Your task to perform on an android device: Search for the best Nike running shoes on Nike.com Image 0: 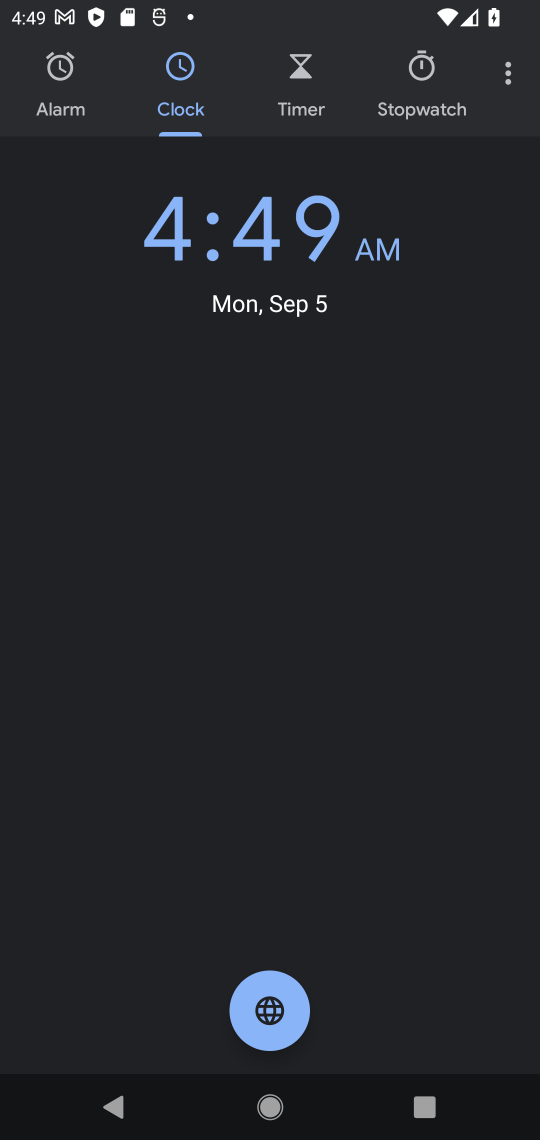
Step 0: press home button
Your task to perform on an android device: Search for the best Nike running shoes on Nike.com Image 1: 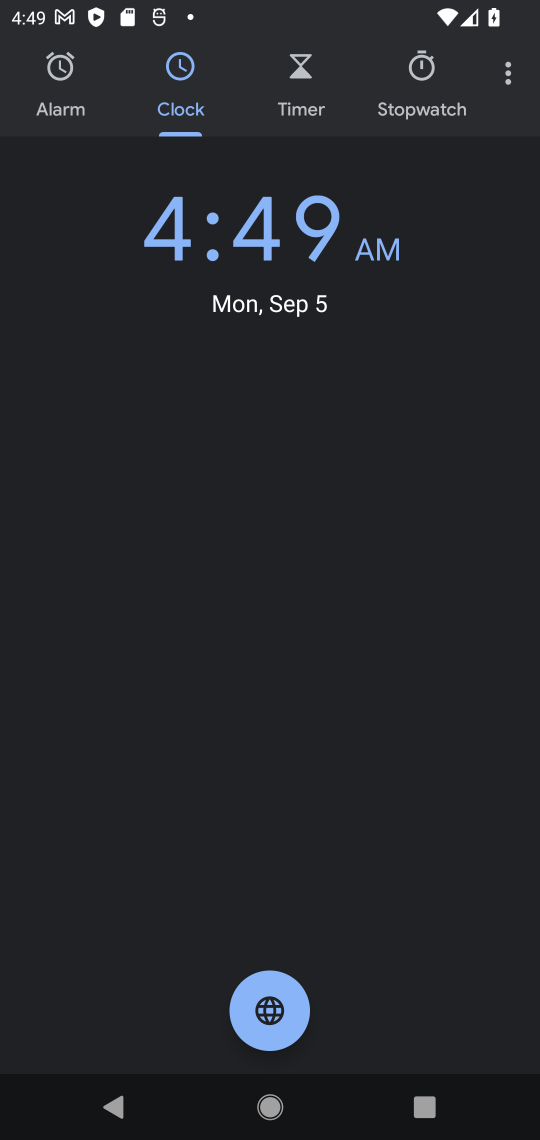
Step 1: press home button
Your task to perform on an android device: Search for the best Nike running shoes on Nike.com Image 2: 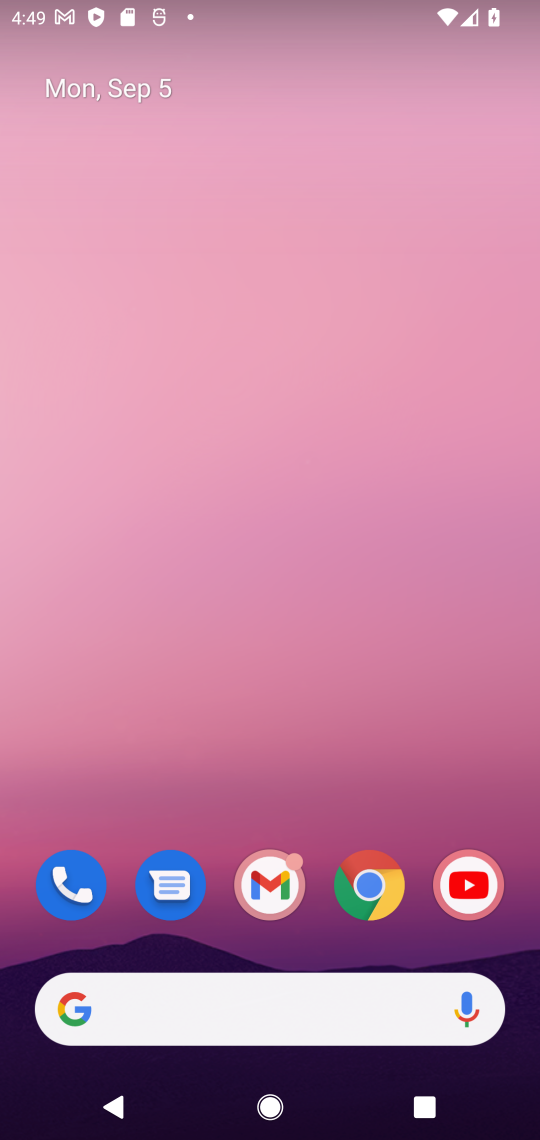
Step 2: press home button
Your task to perform on an android device: Search for the best Nike running shoes on Nike.com Image 3: 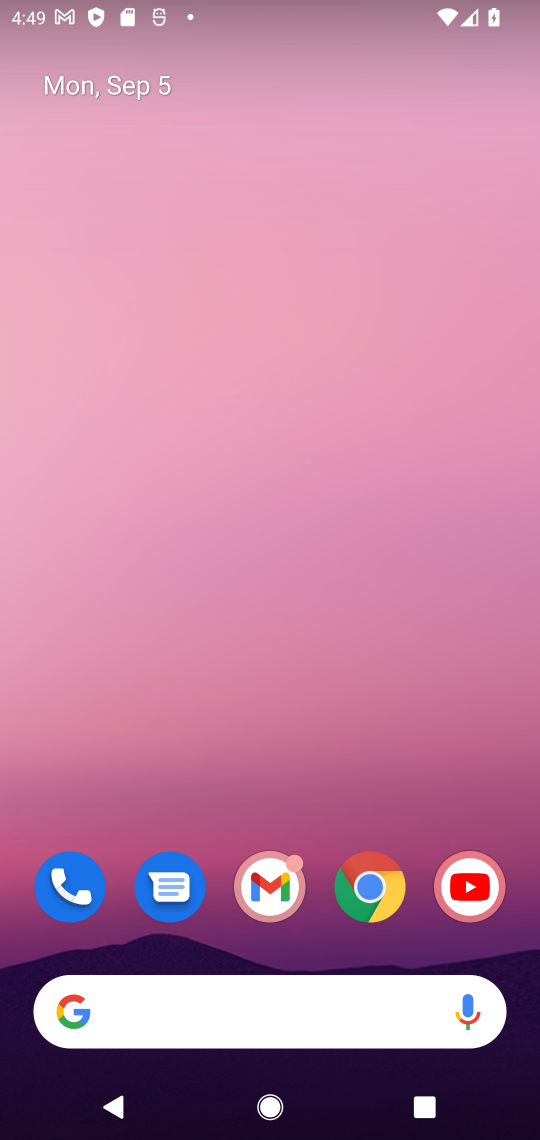
Step 3: drag from (539, 27) to (536, 588)
Your task to perform on an android device: Search for the best Nike running shoes on Nike.com Image 4: 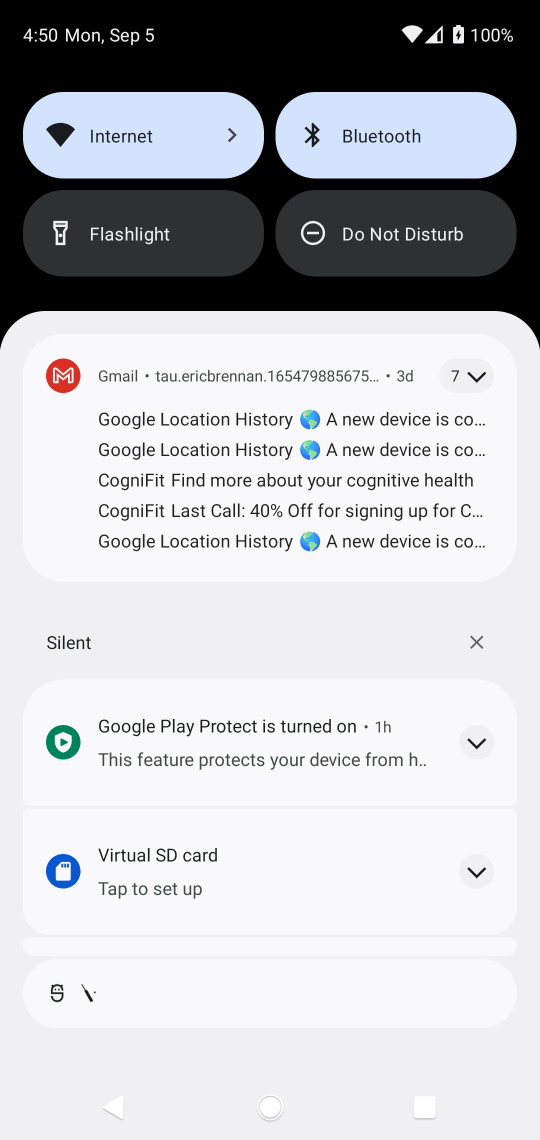
Step 4: press home button
Your task to perform on an android device: Search for the best Nike running shoes on Nike.com Image 5: 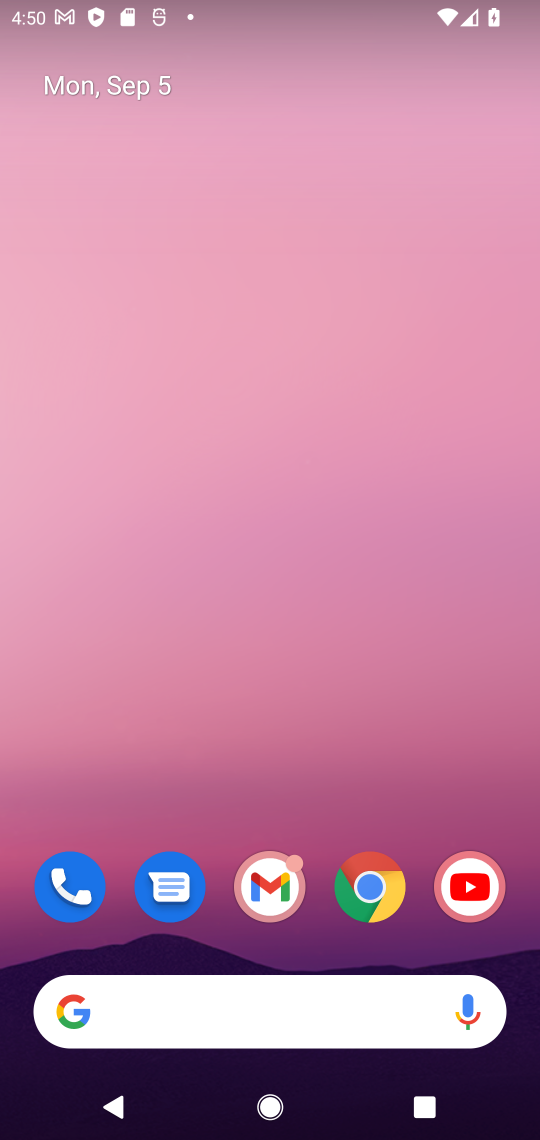
Step 5: drag from (320, 782) to (354, 31)
Your task to perform on an android device: Search for the best Nike running shoes on Nike.com Image 6: 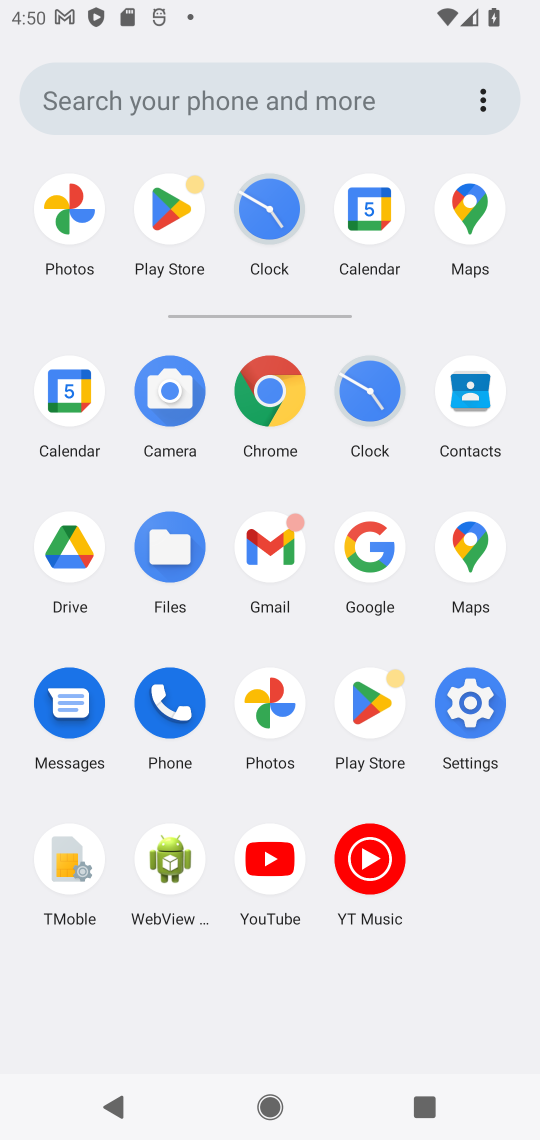
Step 6: click (269, 396)
Your task to perform on an android device: Search for the best Nike running shoes on Nike.com Image 7: 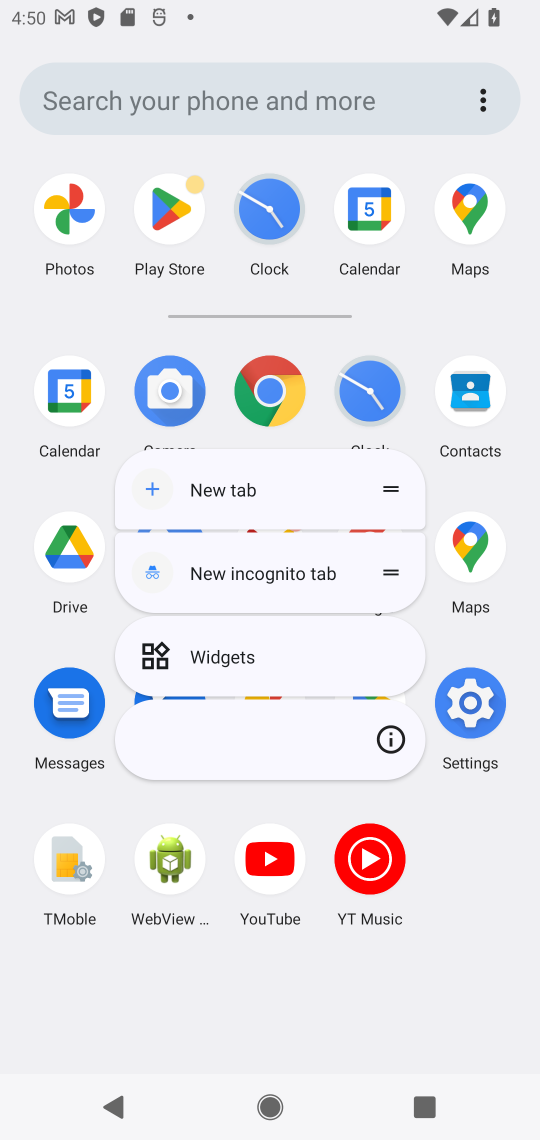
Step 7: click (260, 395)
Your task to perform on an android device: Search for the best Nike running shoes on Nike.com Image 8: 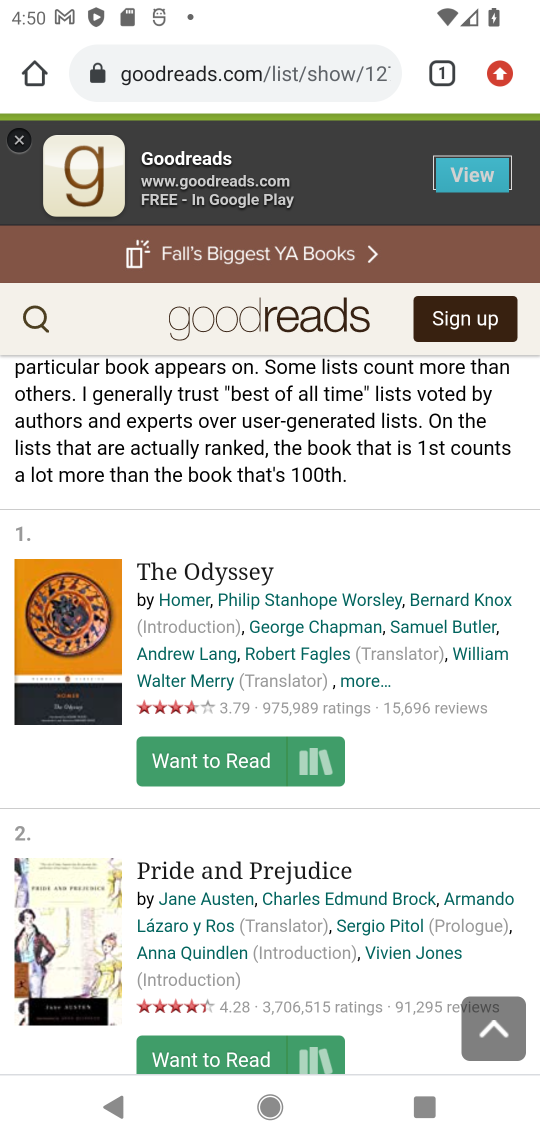
Step 8: click (266, 84)
Your task to perform on an android device: Search for the best Nike running shoes on Nike.com Image 9: 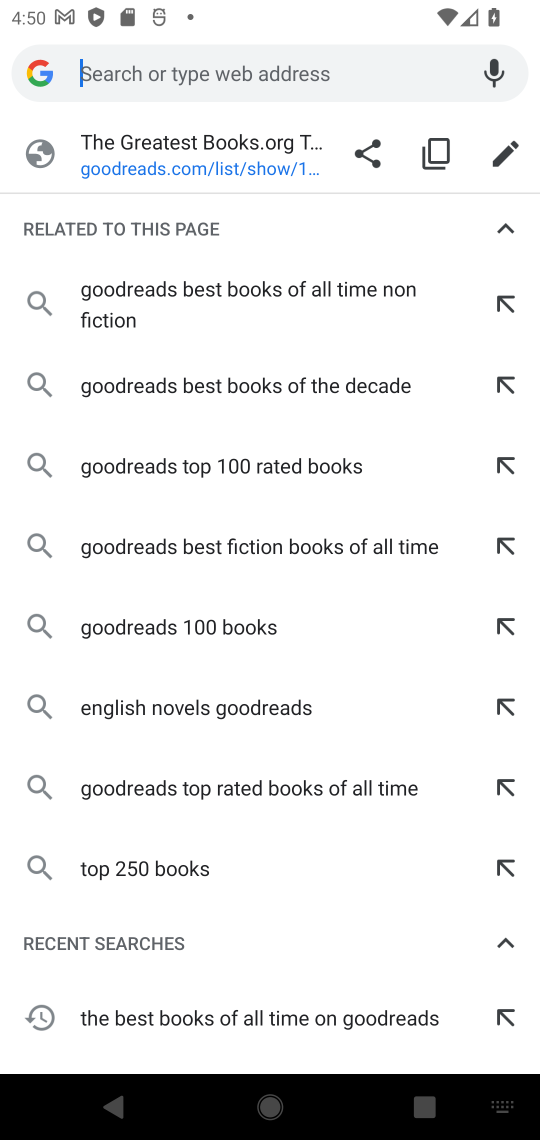
Step 9: type "Nike running shoes on Nike.com"
Your task to perform on an android device: Search for the best Nike running shoes on Nike.com Image 10: 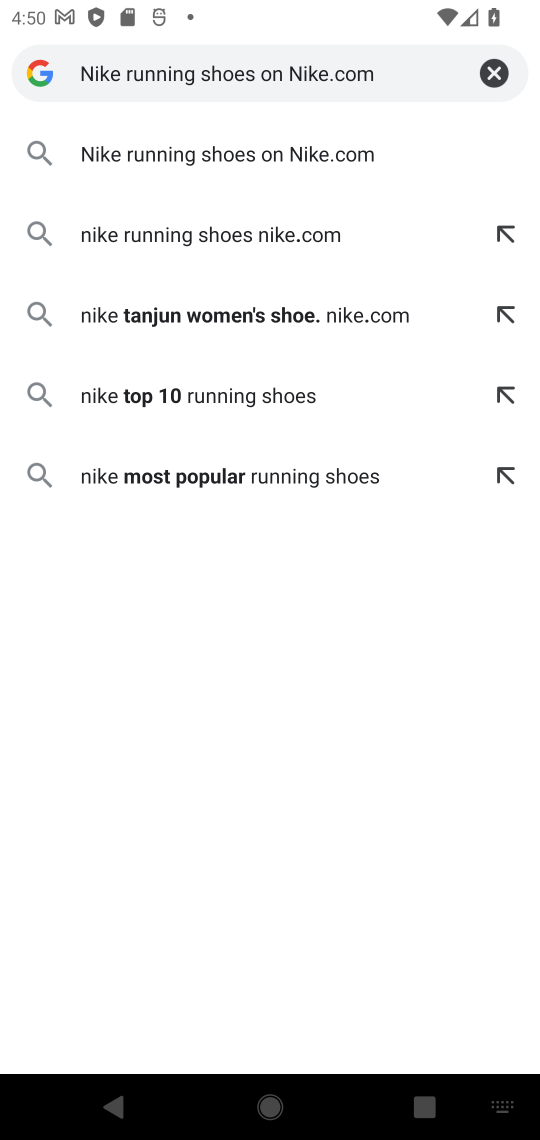
Step 10: click (337, 159)
Your task to perform on an android device: Search for the best Nike running shoes on Nike.com Image 11: 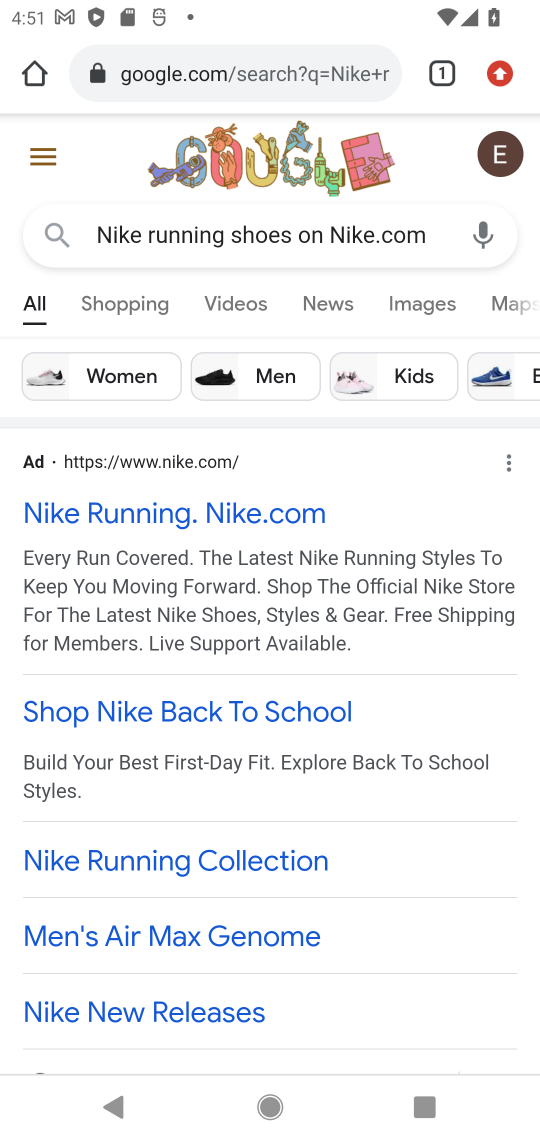
Step 11: drag from (281, 947) to (396, 181)
Your task to perform on an android device: Search for the best Nike running shoes on Nike.com Image 12: 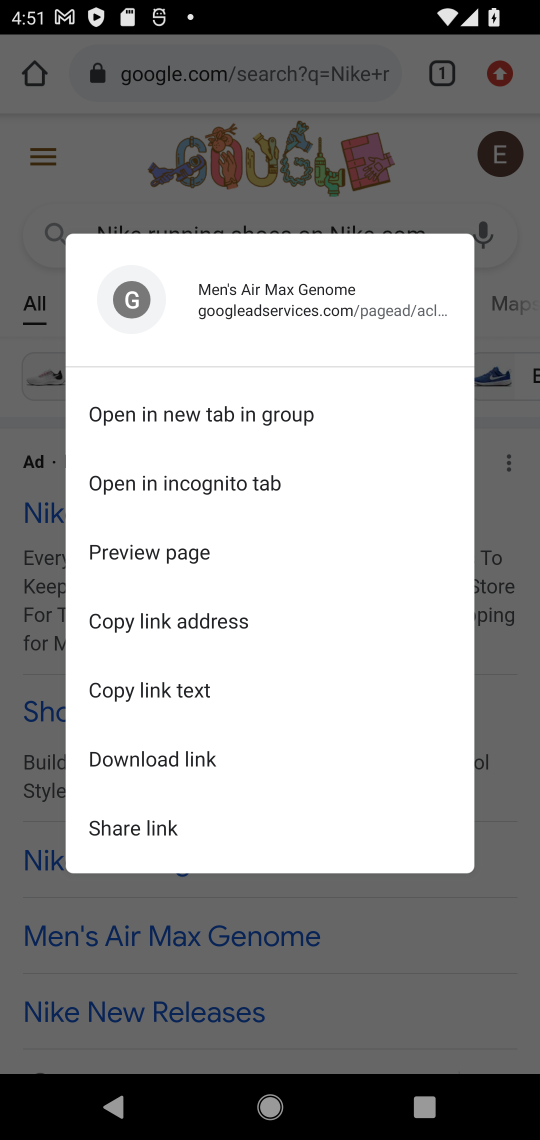
Step 12: click (436, 980)
Your task to perform on an android device: Search for the best Nike running shoes on Nike.com Image 13: 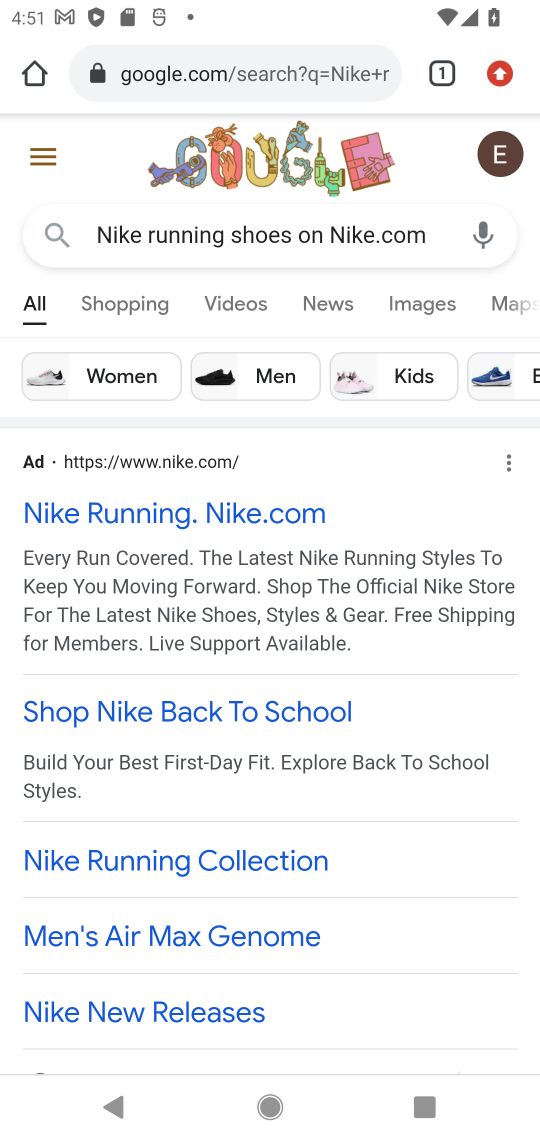
Step 13: drag from (369, 6) to (437, 79)
Your task to perform on an android device: Search for the best Nike running shoes on Nike.com Image 14: 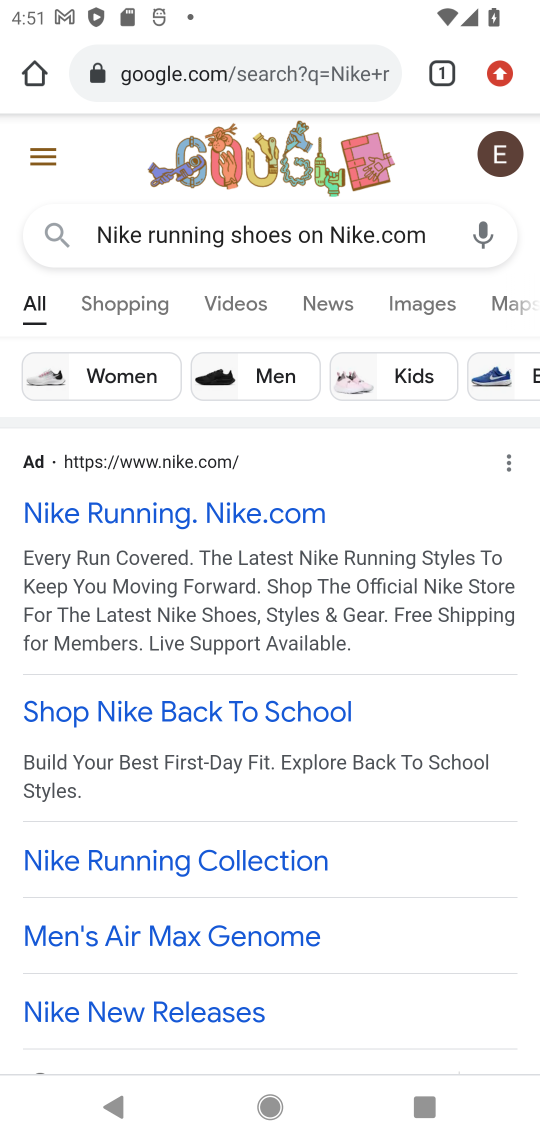
Step 14: drag from (195, 796) to (314, 57)
Your task to perform on an android device: Search for the best Nike running shoes on Nike.com Image 15: 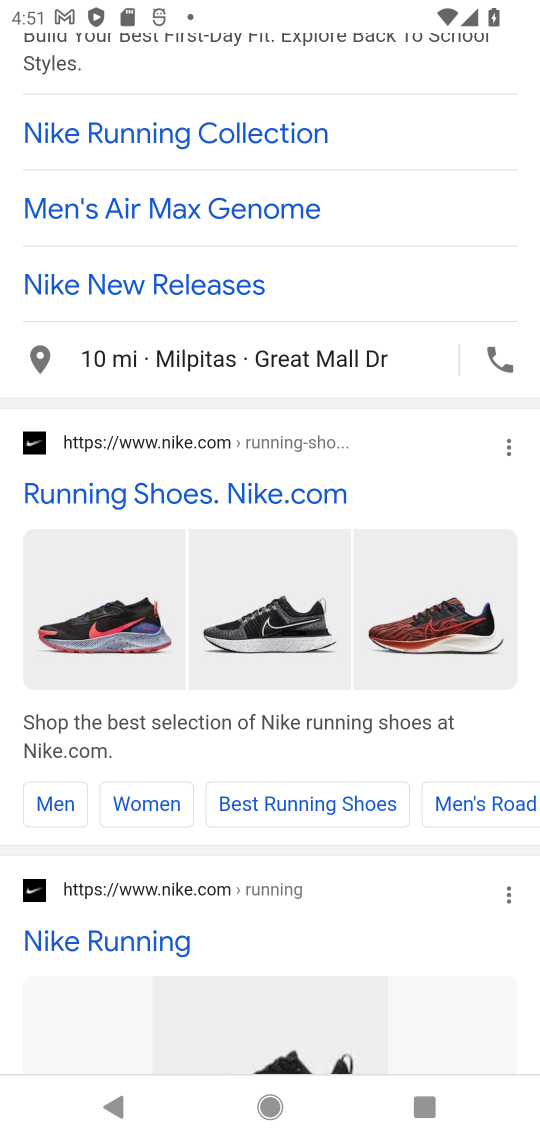
Step 15: click (205, 500)
Your task to perform on an android device: Search for the best Nike running shoes on Nike.com Image 16: 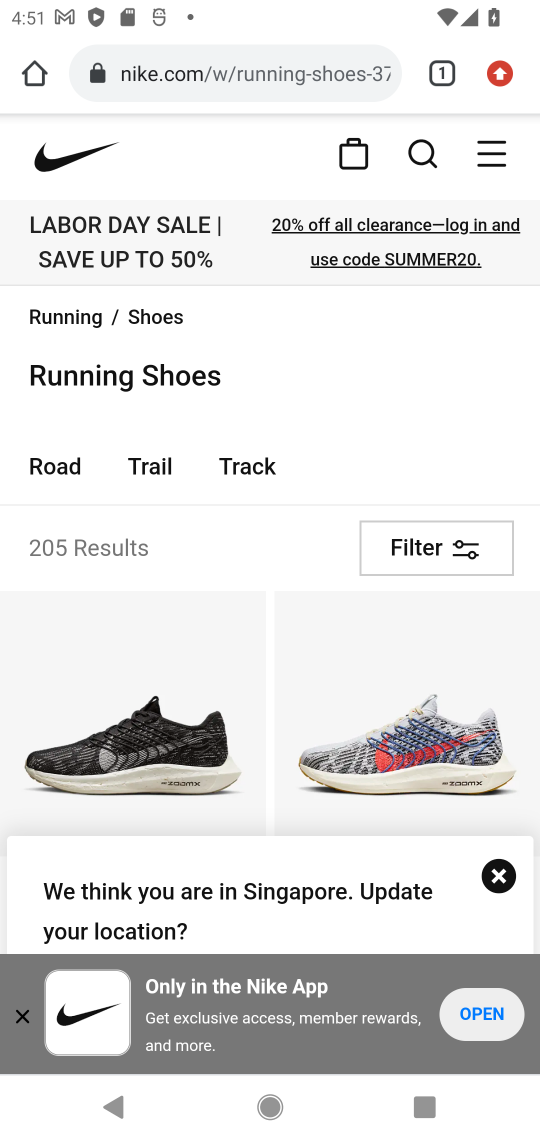
Step 16: task complete